Your task to perform on an android device: all mails in gmail Image 0: 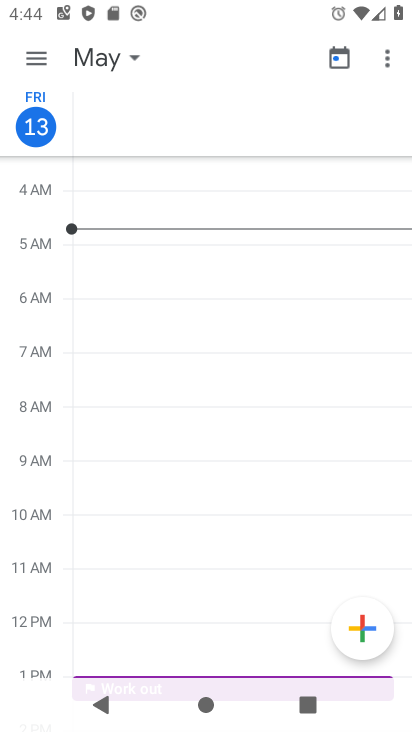
Step 0: press home button
Your task to perform on an android device: all mails in gmail Image 1: 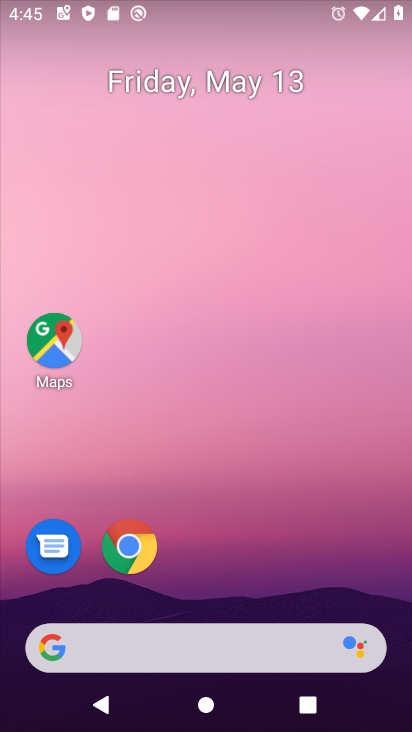
Step 1: drag from (201, 586) to (353, 8)
Your task to perform on an android device: all mails in gmail Image 2: 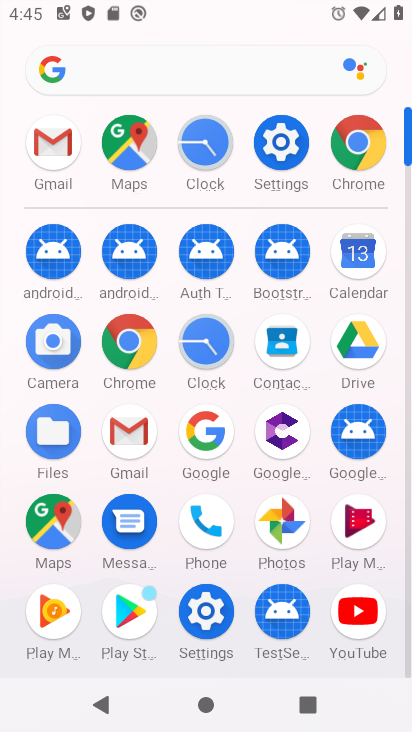
Step 2: click (133, 441)
Your task to perform on an android device: all mails in gmail Image 3: 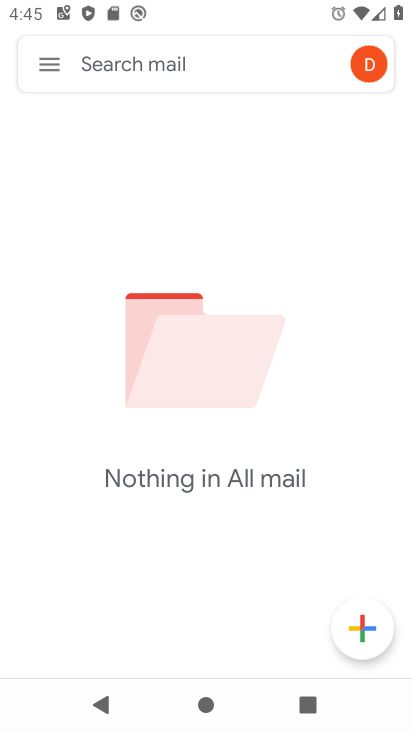
Step 3: task complete